Your task to perform on an android device: toggle wifi Image 0: 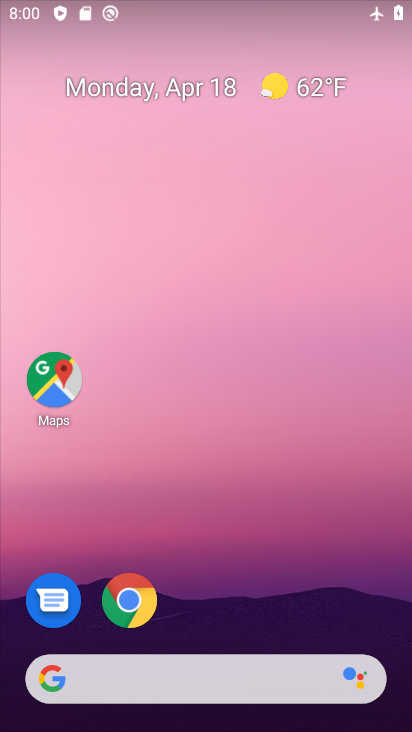
Step 0: drag from (197, 643) to (193, 20)
Your task to perform on an android device: toggle wifi Image 1: 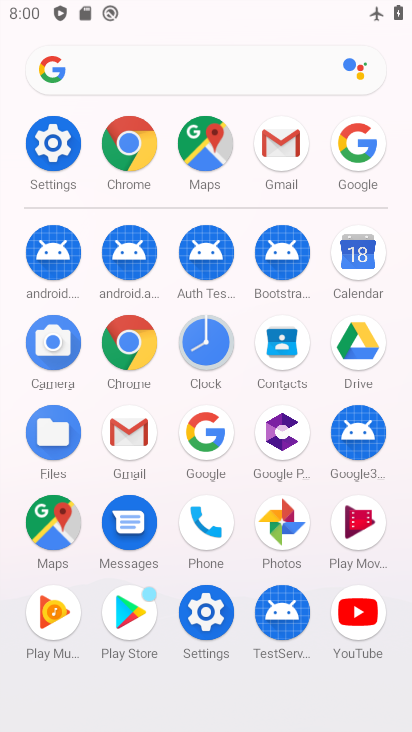
Step 1: click (55, 157)
Your task to perform on an android device: toggle wifi Image 2: 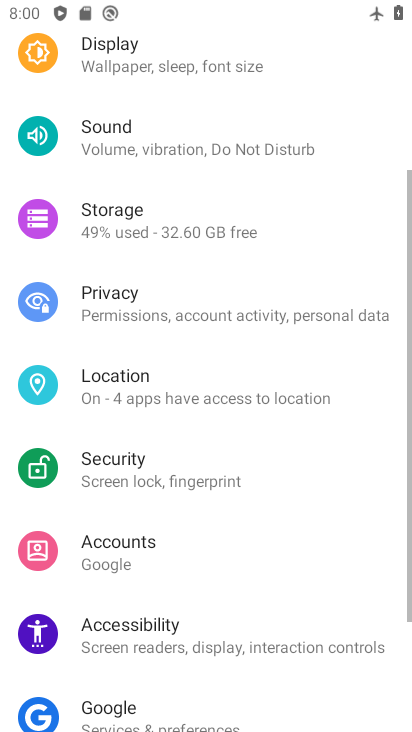
Step 2: drag from (117, 152) to (165, 528)
Your task to perform on an android device: toggle wifi Image 3: 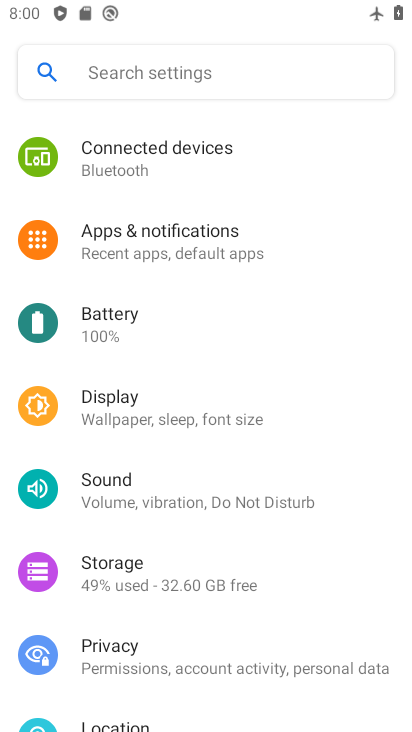
Step 3: drag from (210, 191) to (214, 626)
Your task to perform on an android device: toggle wifi Image 4: 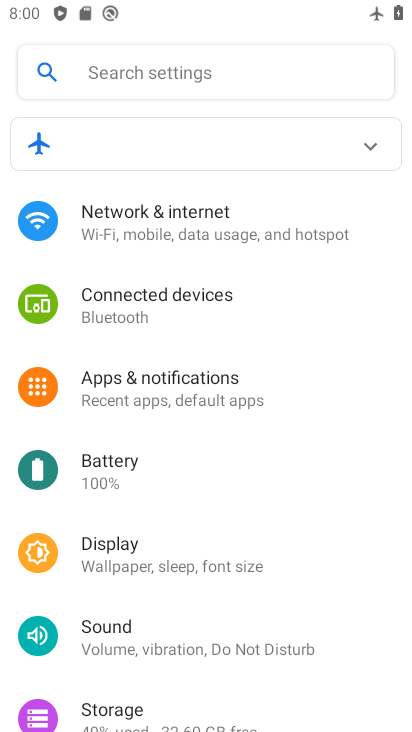
Step 4: click (184, 237)
Your task to perform on an android device: toggle wifi Image 5: 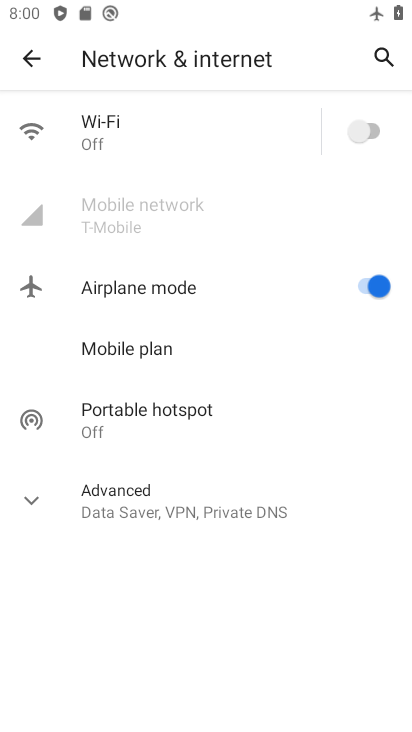
Step 5: click (367, 125)
Your task to perform on an android device: toggle wifi Image 6: 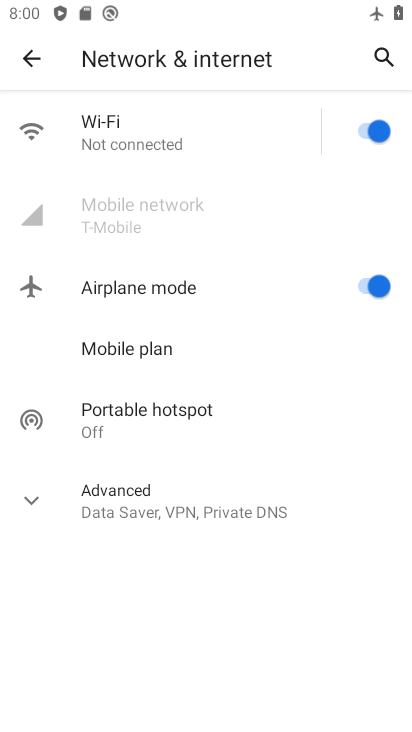
Step 6: task complete